Your task to perform on an android device: turn off location Image 0: 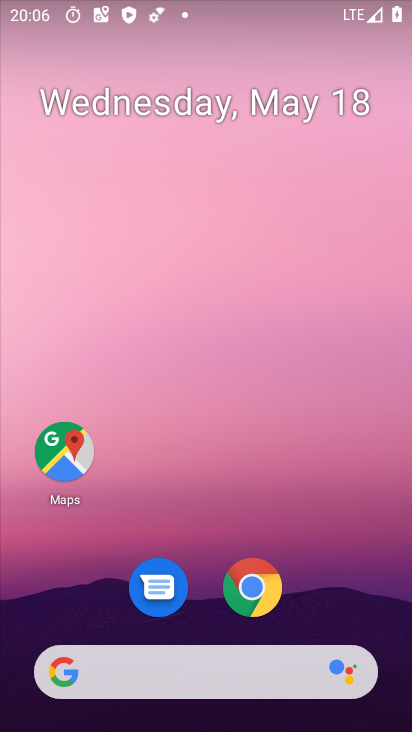
Step 0: drag from (179, 621) to (178, 147)
Your task to perform on an android device: turn off location Image 1: 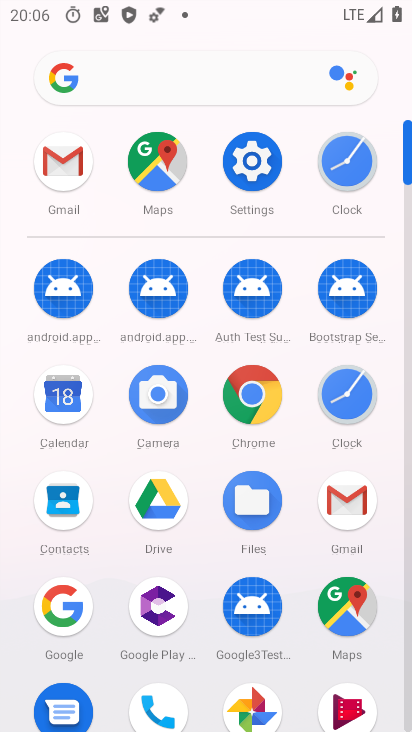
Step 1: click (242, 155)
Your task to perform on an android device: turn off location Image 2: 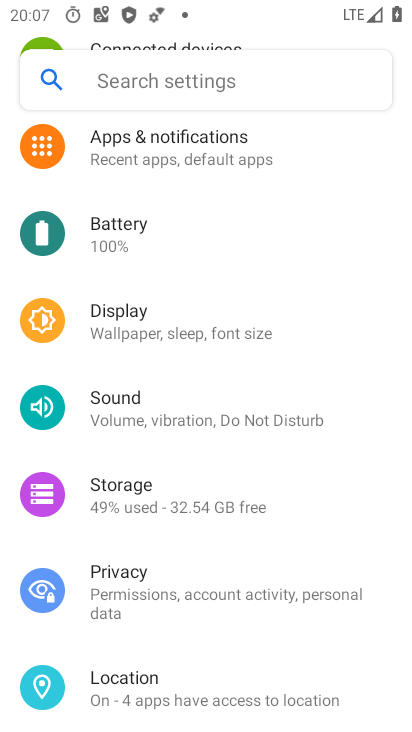
Step 2: click (130, 712)
Your task to perform on an android device: turn off location Image 3: 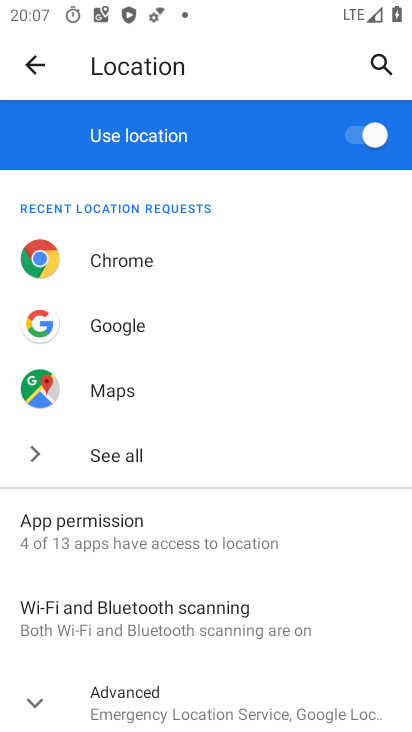
Step 3: click (357, 126)
Your task to perform on an android device: turn off location Image 4: 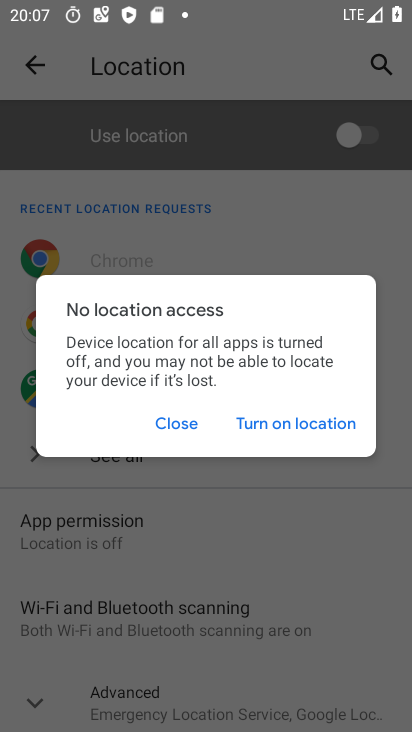
Step 4: task complete